Your task to perform on an android device: change notifications settings Image 0: 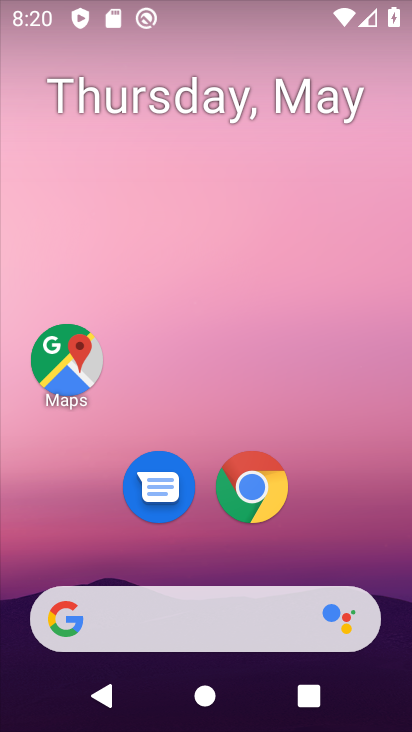
Step 0: drag from (358, 554) to (410, 599)
Your task to perform on an android device: change notifications settings Image 1: 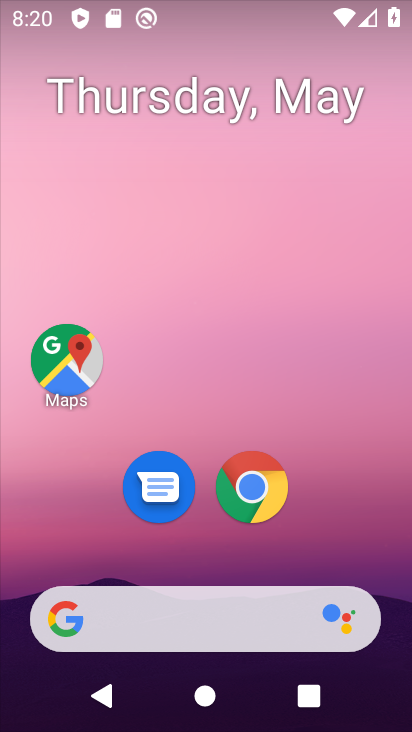
Step 1: drag from (362, 569) to (343, 0)
Your task to perform on an android device: change notifications settings Image 2: 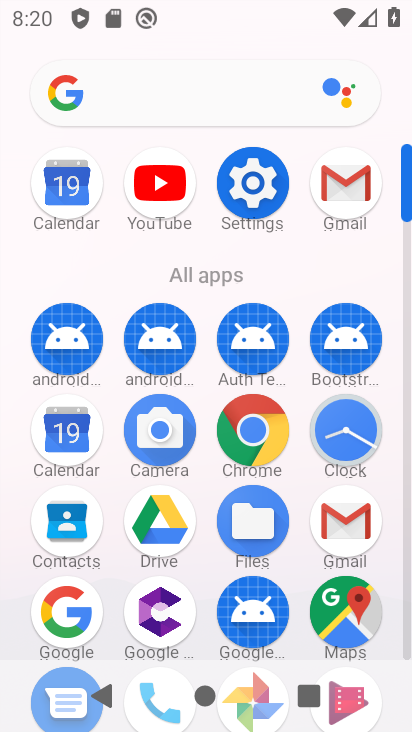
Step 2: click (238, 191)
Your task to perform on an android device: change notifications settings Image 3: 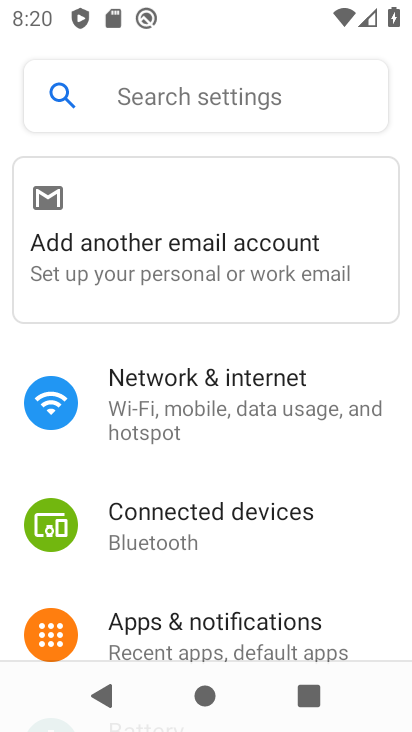
Step 3: click (252, 618)
Your task to perform on an android device: change notifications settings Image 4: 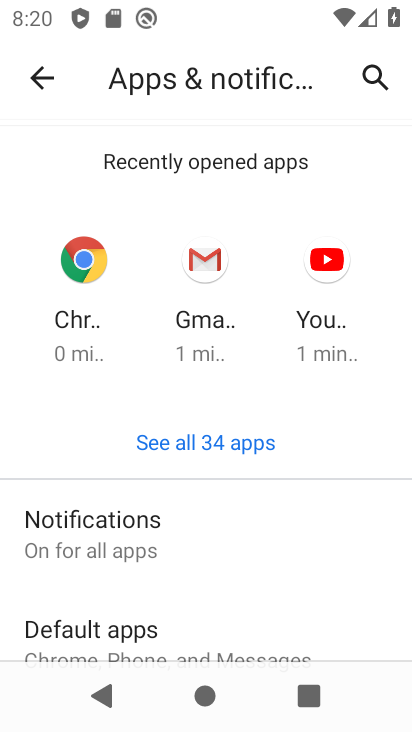
Step 4: click (140, 525)
Your task to perform on an android device: change notifications settings Image 5: 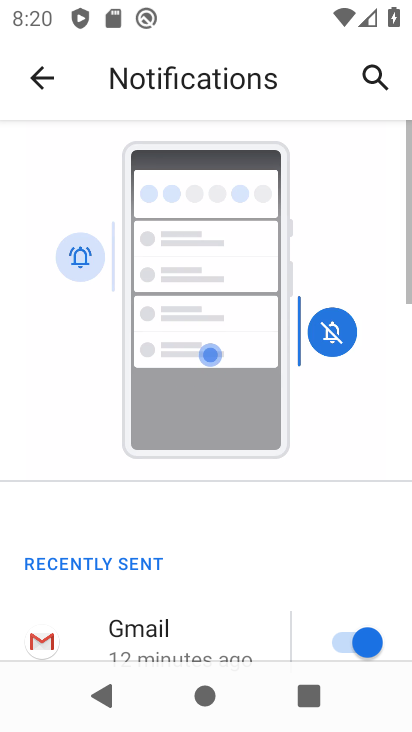
Step 5: drag from (241, 592) to (212, 11)
Your task to perform on an android device: change notifications settings Image 6: 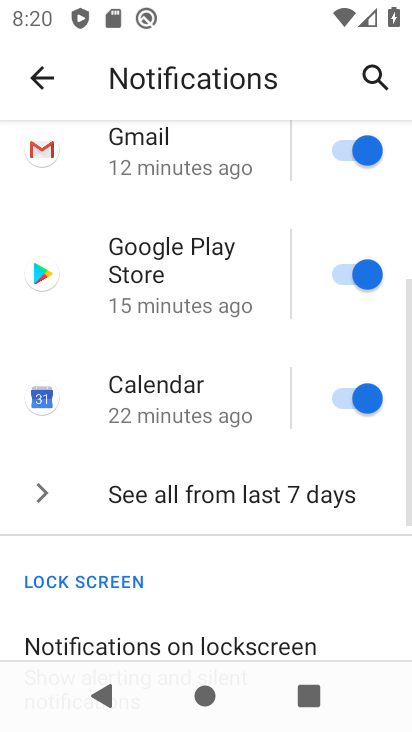
Step 6: drag from (271, 551) to (213, 11)
Your task to perform on an android device: change notifications settings Image 7: 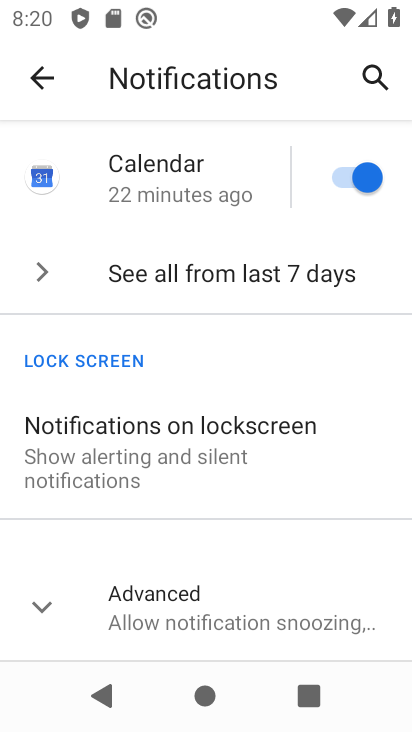
Step 7: click (210, 623)
Your task to perform on an android device: change notifications settings Image 8: 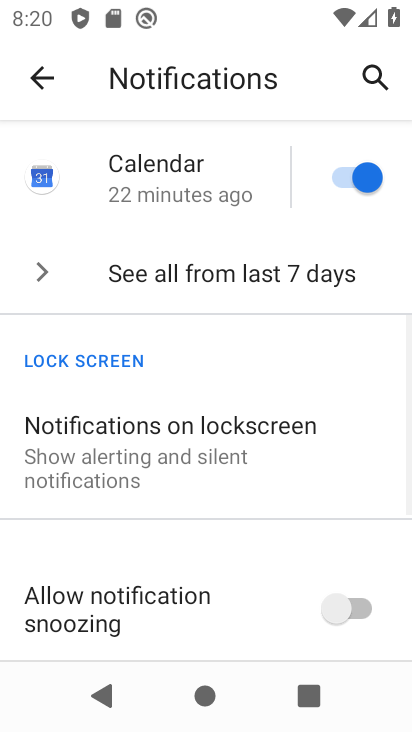
Step 8: click (335, 615)
Your task to perform on an android device: change notifications settings Image 9: 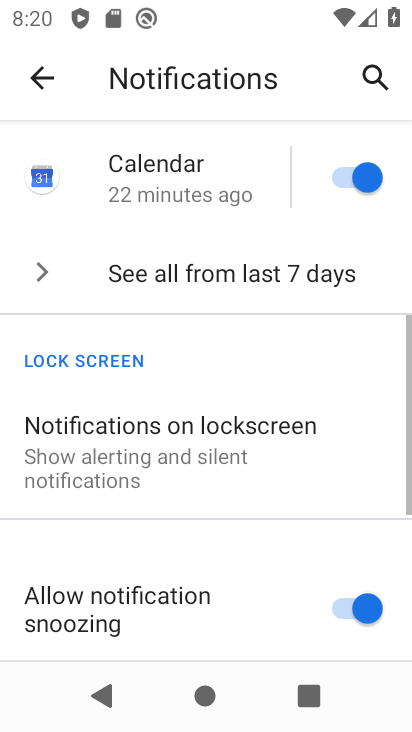
Step 9: drag from (260, 564) to (237, 285)
Your task to perform on an android device: change notifications settings Image 10: 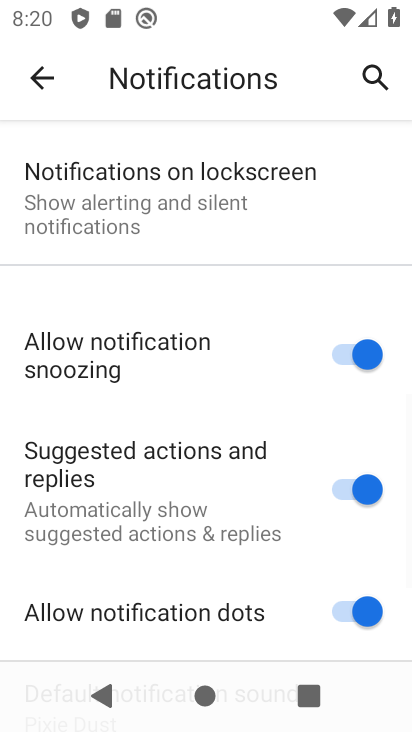
Step 10: click (340, 489)
Your task to perform on an android device: change notifications settings Image 11: 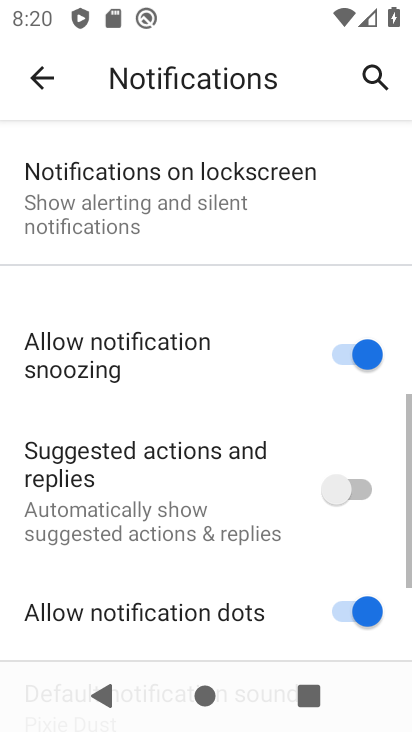
Step 11: click (362, 614)
Your task to perform on an android device: change notifications settings Image 12: 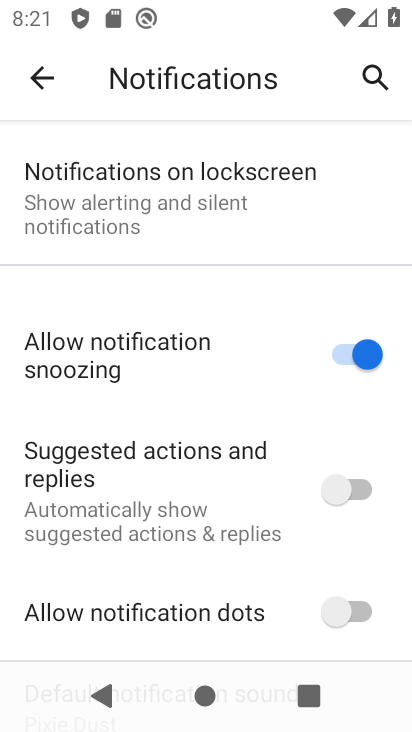
Step 12: task complete